Your task to perform on an android device: choose inbox layout in the gmail app Image 0: 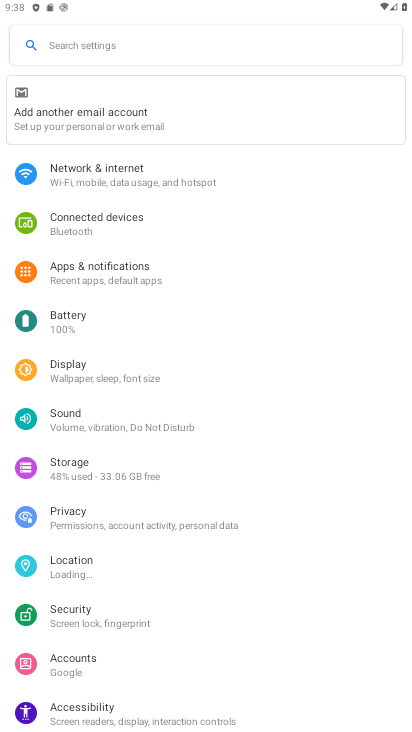
Step 0: press home button
Your task to perform on an android device: choose inbox layout in the gmail app Image 1: 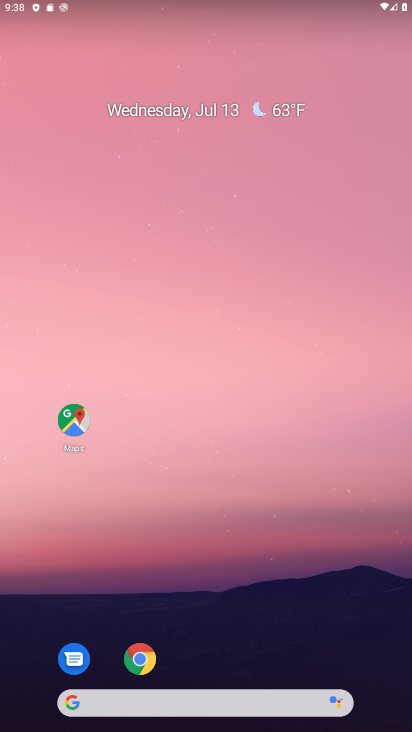
Step 1: drag from (185, 696) to (251, 75)
Your task to perform on an android device: choose inbox layout in the gmail app Image 2: 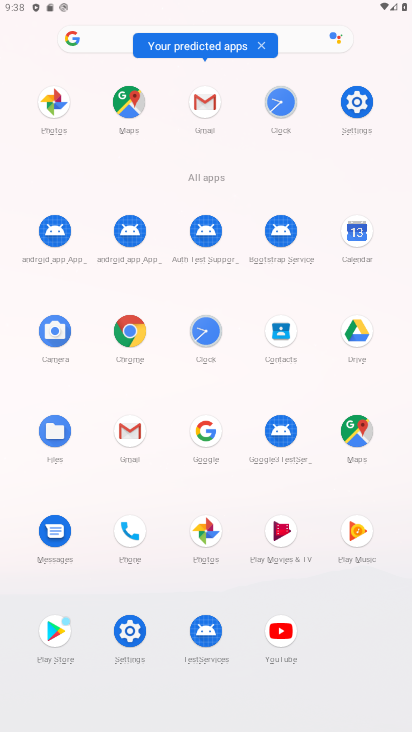
Step 2: click (124, 421)
Your task to perform on an android device: choose inbox layout in the gmail app Image 3: 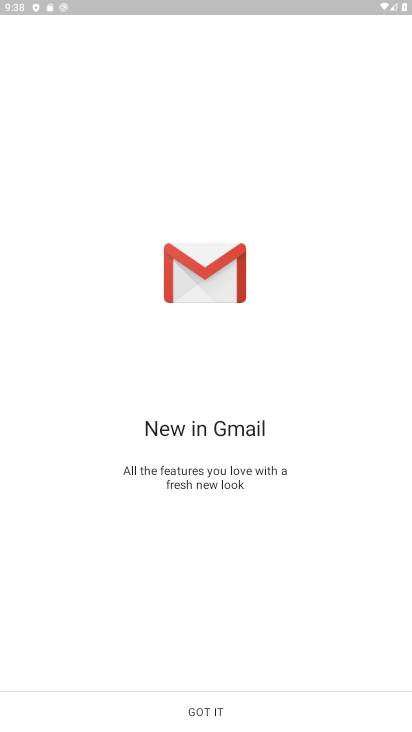
Step 3: click (195, 716)
Your task to perform on an android device: choose inbox layout in the gmail app Image 4: 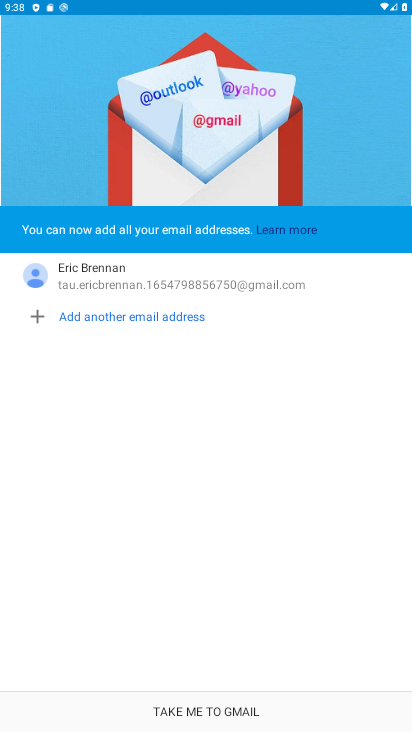
Step 4: click (191, 725)
Your task to perform on an android device: choose inbox layout in the gmail app Image 5: 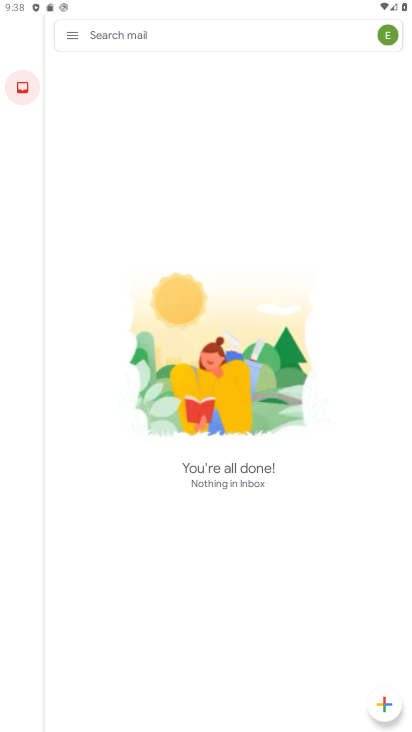
Step 5: click (76, 36)
Your task to perform on an android device: choose inbox layout in the gmail app Image 6: 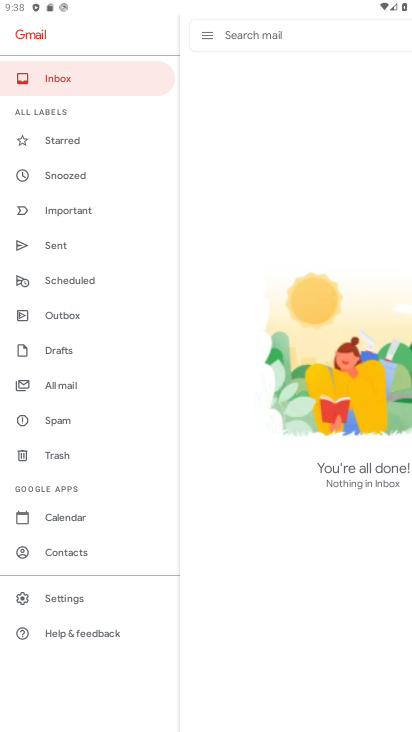
Step 6: click (68, 591)
Your task to perform on an android device: choose inbox layout in the gmail app Image 7: 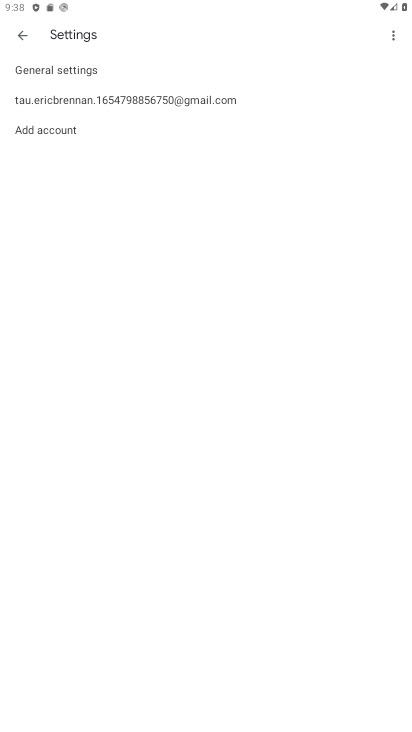
Step 7: click (182, 100)
Your task to perform on an android device: choose inbox layout in the gmail app Image 8: 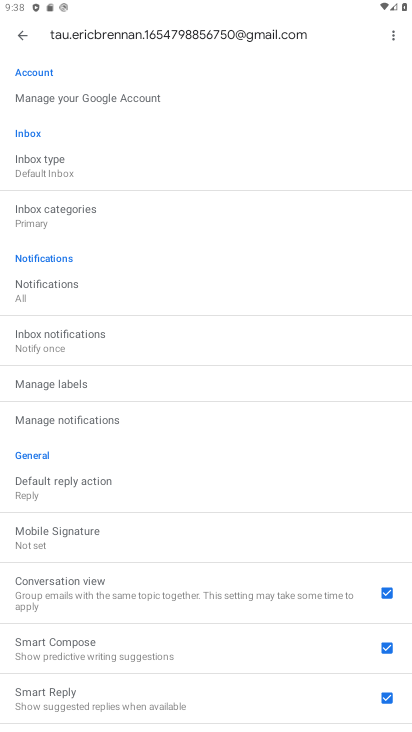
Step 8: click (92, 173)
Your task to perform on an android device: choose inbox layout in the gmail app Image 9: 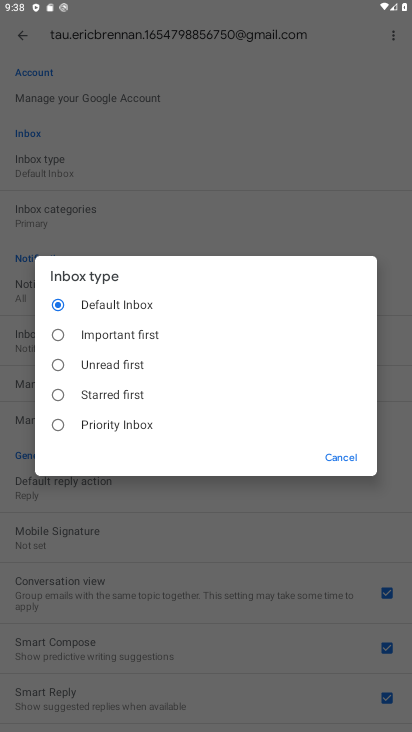
Step 9: click (106, 423)
Your task to perform on an android device: choose inbox layout in the gmail app Image 10: 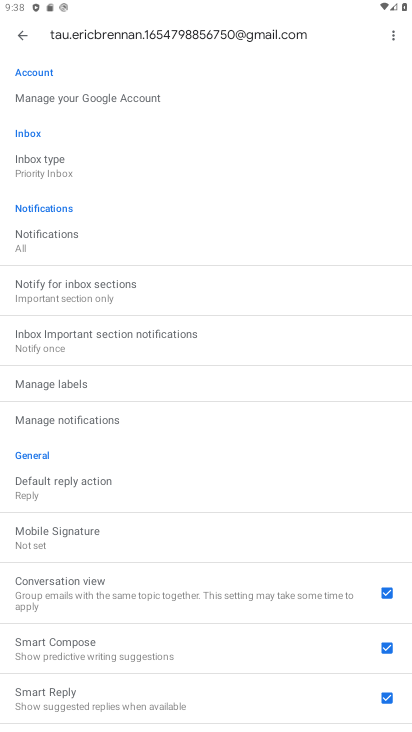
Step 10: task complete